Your task to perform on an android device: open a bookmark in the chrome app Image 0: 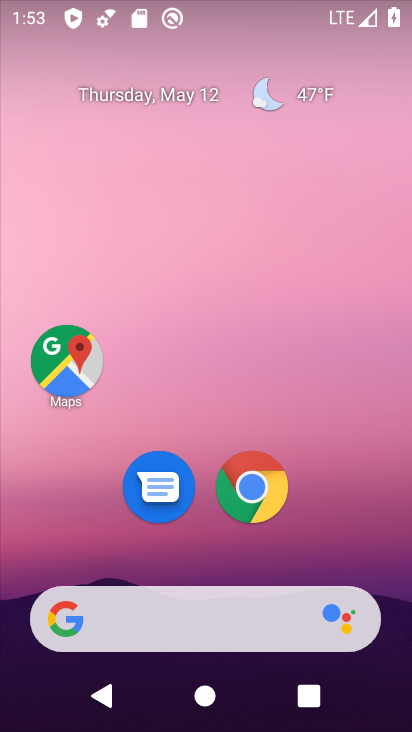
Step 0: click (264, 485)
Your task to perform on an android device: open a bookmark in the chrome app Image 1: 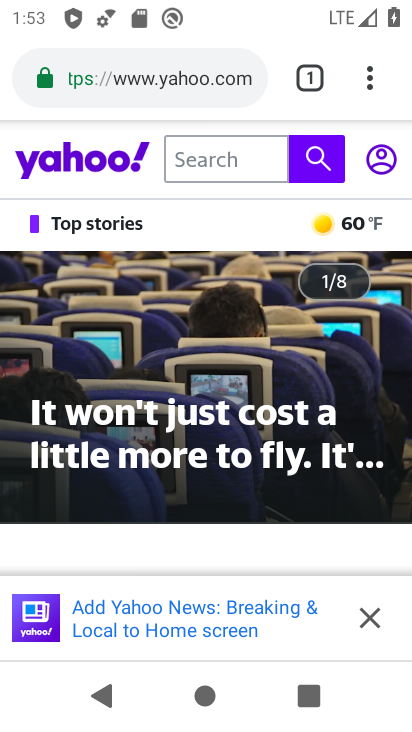
Step 1: click (370, 81)
Your task to perform on an android device: open a bookmark in the chrome app Image 2: 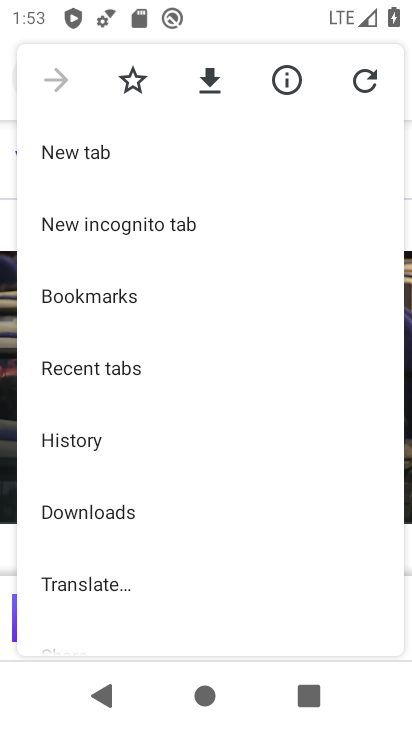
Step 2: drag from (173, 491) to (181, 330)
Your task to perform on an android device: open a bookmark in the chrome app Image 3: 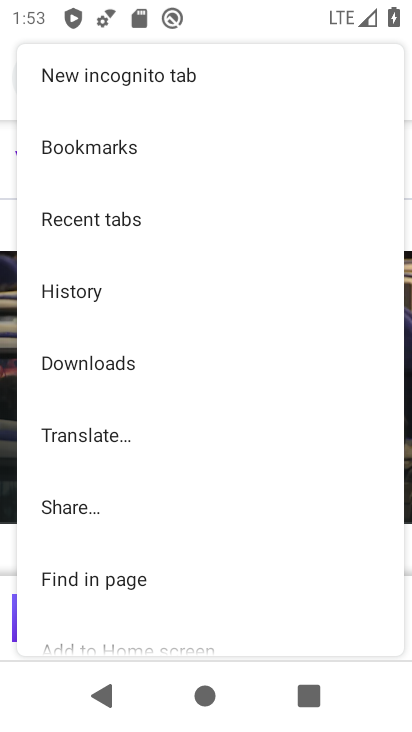
Step 3: click (97, 143)
Your task to perform on an android device: open a bookmark in the chrome app Image 4: 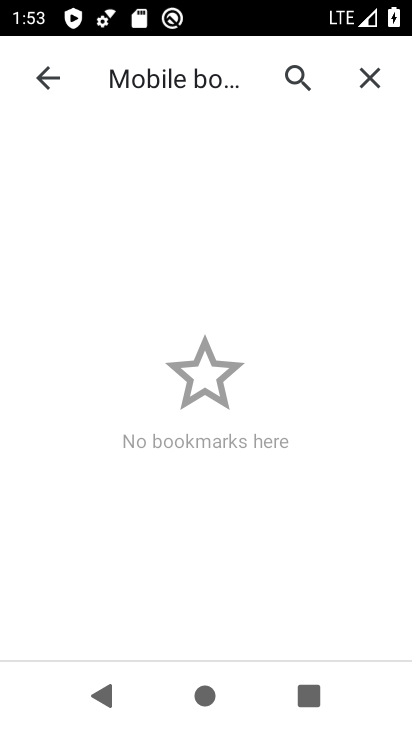
Step 4: task complete